Your task to perform on an android device: Turn off the flashlight Image 0: 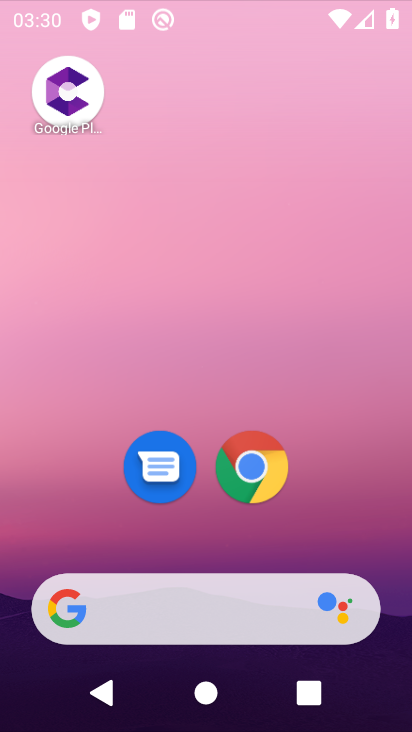
Step 0: press home button
Your task to perform on an android device: Turn off the flashlight Image 1: 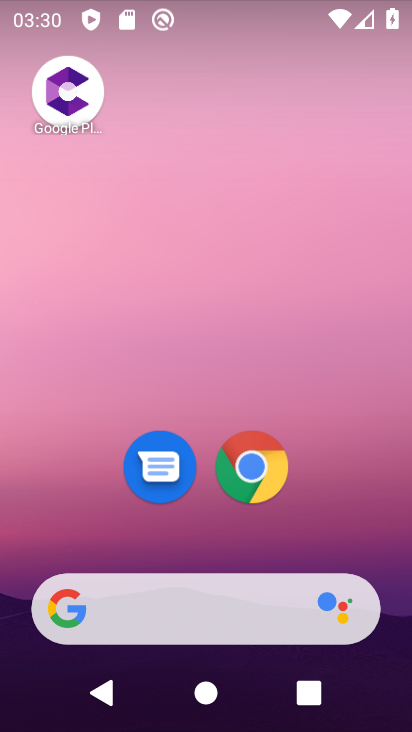
Step 1: drag from (212, 538) to (265, 1)
Your task to perform on an android device: Turn off the flashlight Image 2: 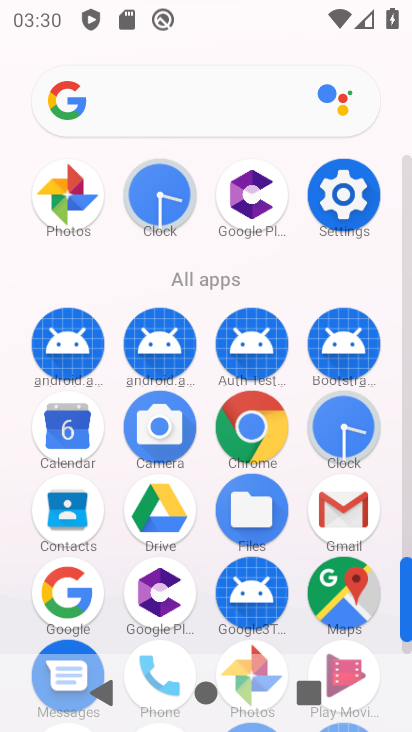
Step 2: click (342, 187)
Your task to perform on an android device: Turn off the flashlight Image 3: 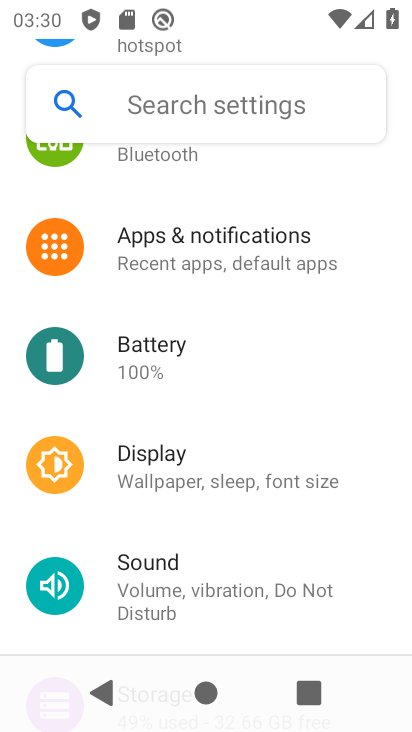
Step 3: click (171, 96)
Your task to perform on an android device: Turn off the flashlight Image 4: 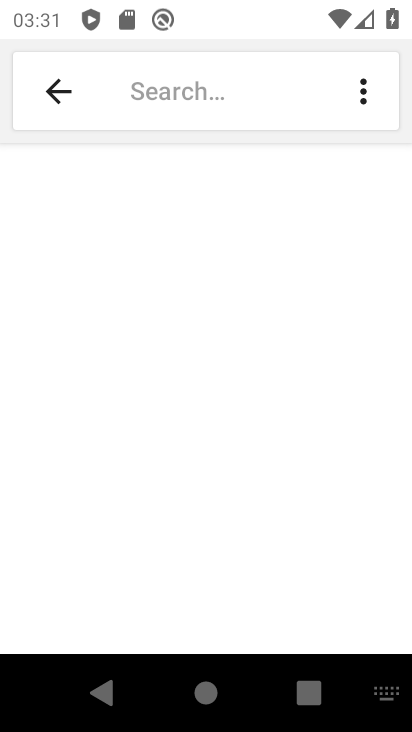
Step 4: type "flashlight"
Your task to perform on an android device: Turn off the flashlight Image 5: 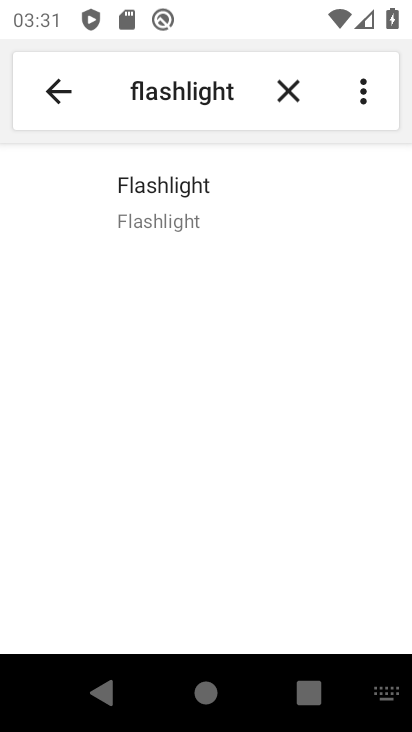
Step 5: click (220, 202)
Your task to perform on an android device: Turn off the flashlight Image 6: 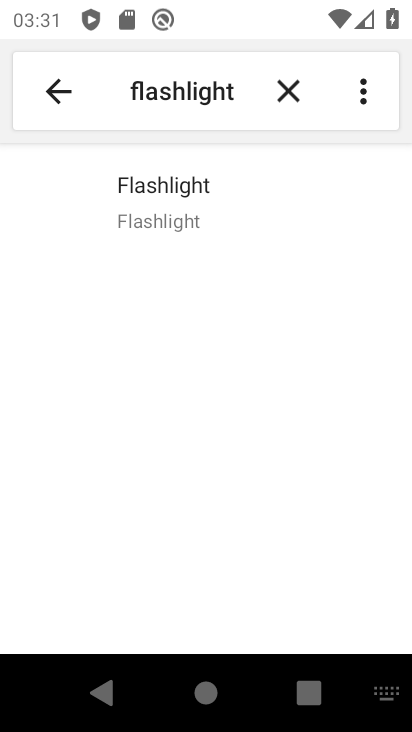
Step 6: click (226, 198)
Your task to perform on an android device: Turn off the flashlight Image 7: 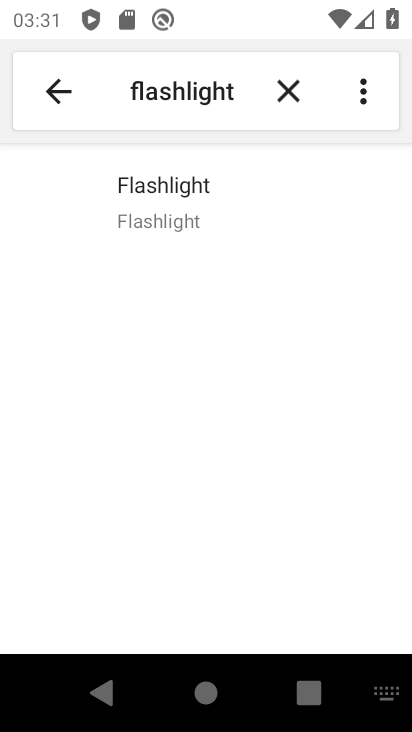
Step 7: task complete